Your task to perform on an android device: Google the capital of Colombia Image 0: 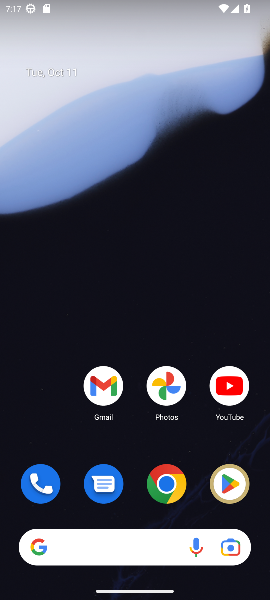
Step 0: click (167, 483)
Your task to perform on an android device: Google the capital of Colombia Image 1: 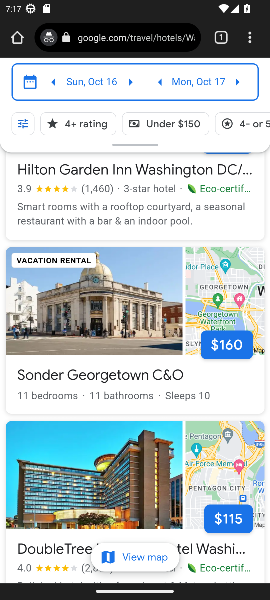
Step 1: click (138, 42)
Your task to perform on an android device: Google the capital of Colombia Image 2: 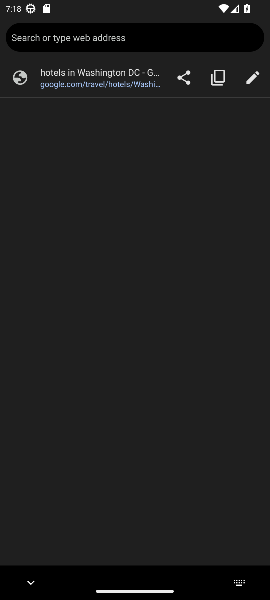
Step 2: type "capital of Colombia"
Your task to perform on an android device: Google the capital of Colombia Image 3: 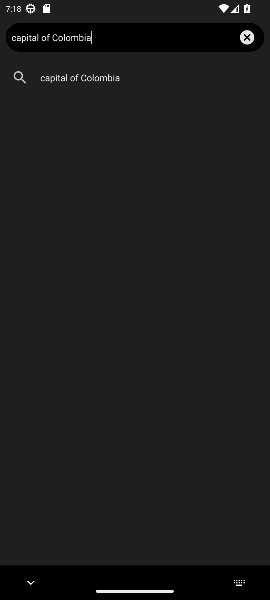
Step 3: click (103, 82)
Your task to perform on an android device: Google the capital of Colombia Image 4: 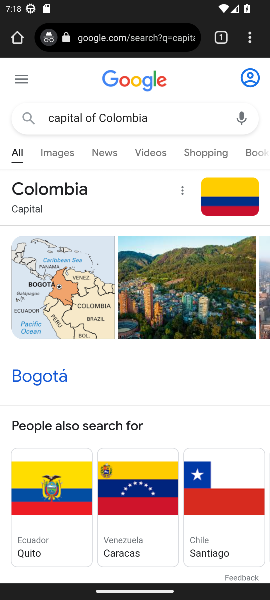
Step 4: task complete